Your task to perform on an android device: toggle data saver in the chrome app Image 0: 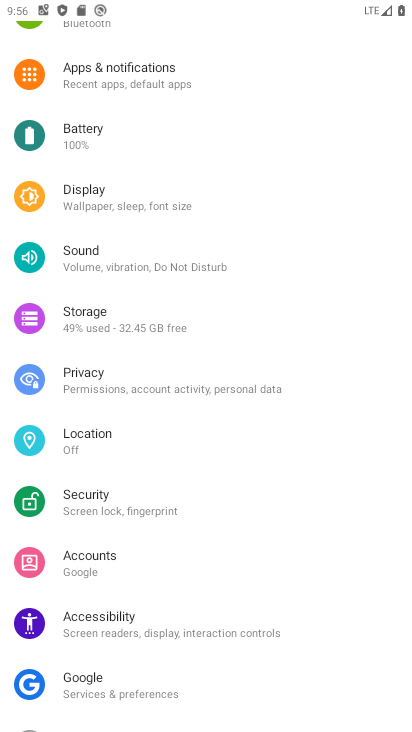
Step 0: press home button
Your task to perform on an android device: toggle data saver in the chrome app Image 1: 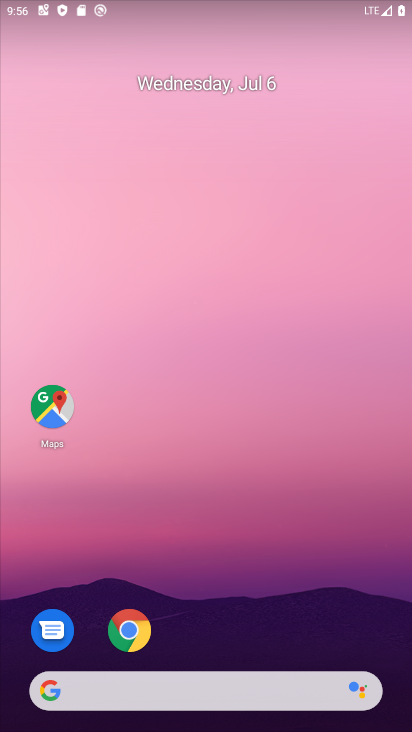
Step 1: click (137, 631)
Your task to perform on an android device: toggle data saver in the chrome app Image 2: 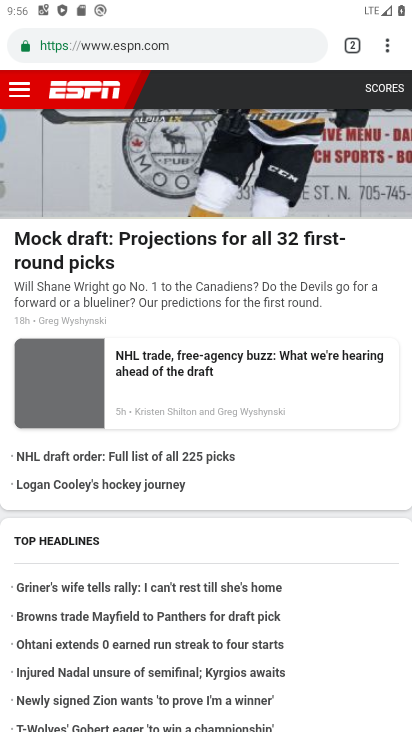
Step 2: click (385, 47)
Your task to perform on an android device: toggle data saver in the chrome app Image 3: 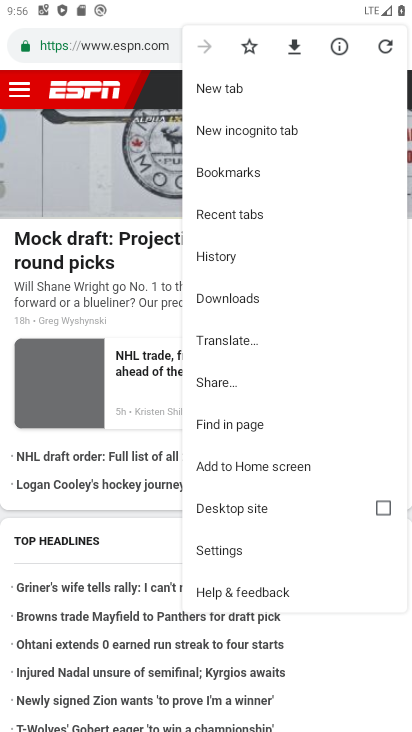
Step 3: click (230, 549)
Your task to perform on an android device: toggle data saver in the chrome app Image 4: 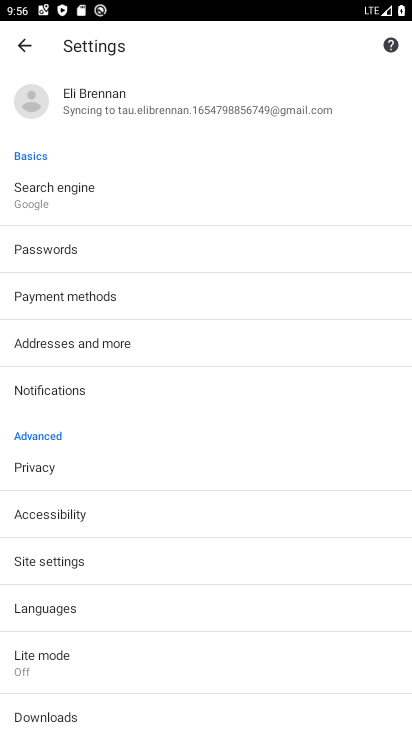
Step 4: click (38, 656)
Your task to perform on an android device: toggle data saver in the chrome app Image 5: 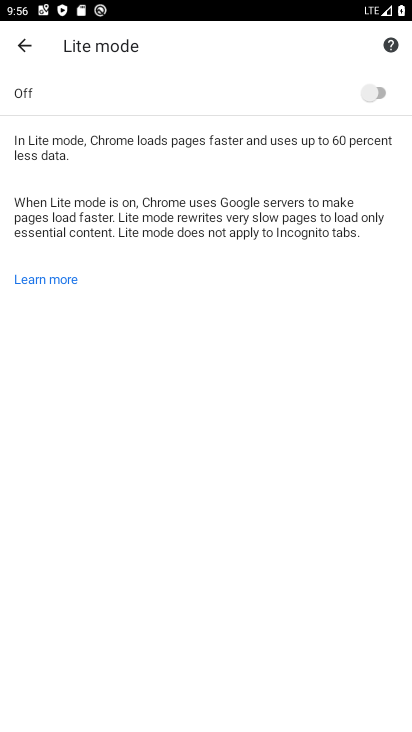
Step 5: click (380, 93)
Your task to perform on an android device: toggle data saver in the chrome app Image 6: 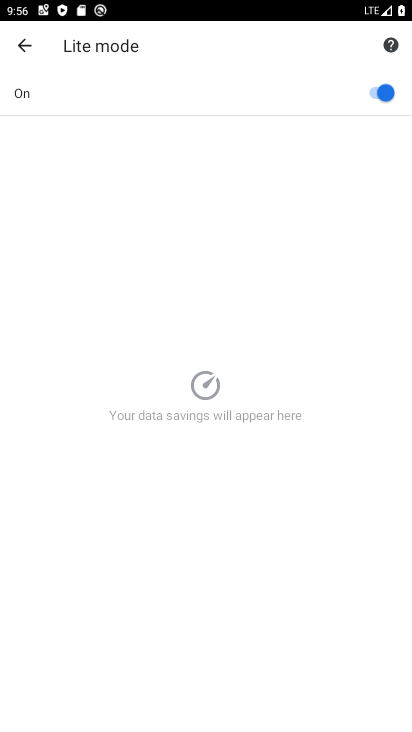
Step 6: task complete